Your task to perform on an android device: Open wifi settings Image 0: 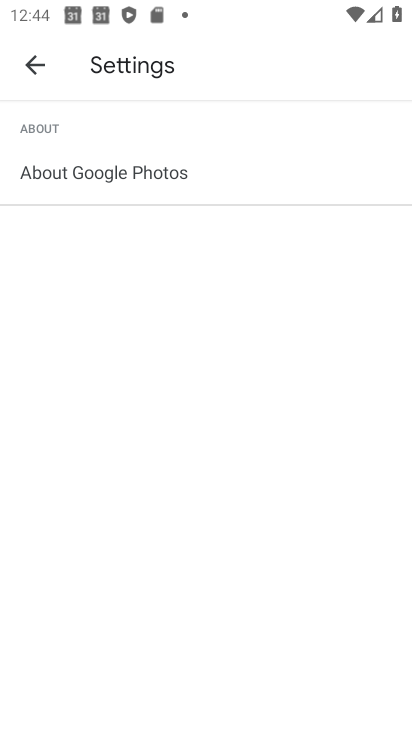
Step 0: press home button
Your task to perform on an android device: Open wifi settings Image 1: 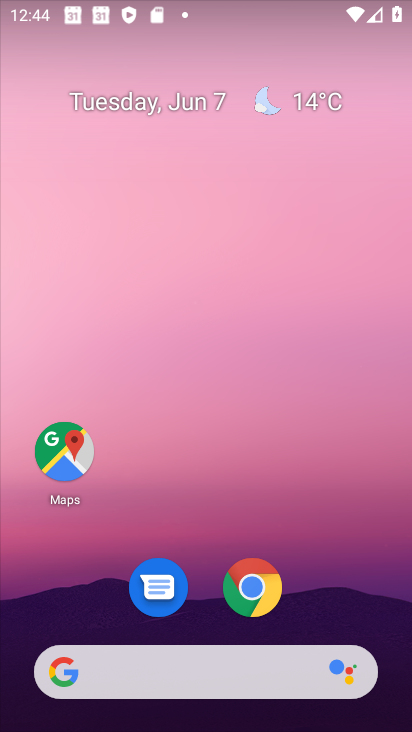
Step 1: drag from (253, 647) to (348, 151)
Your task to perform on an android device: Open wifi settings Image 2: 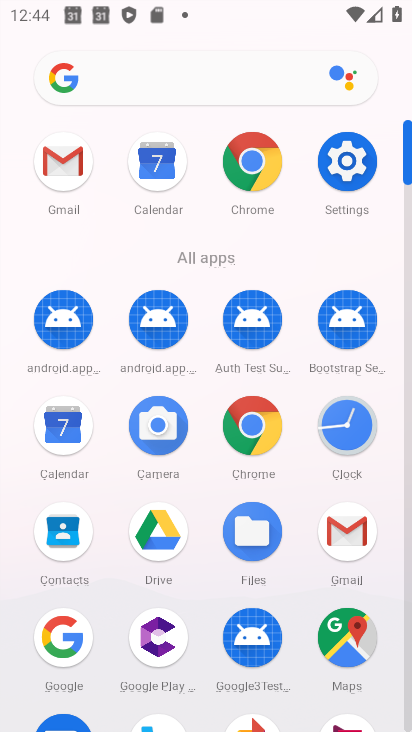
Step 2: click (377, 170)
Your task to perform on an android device: Open wifi settings Image 3: 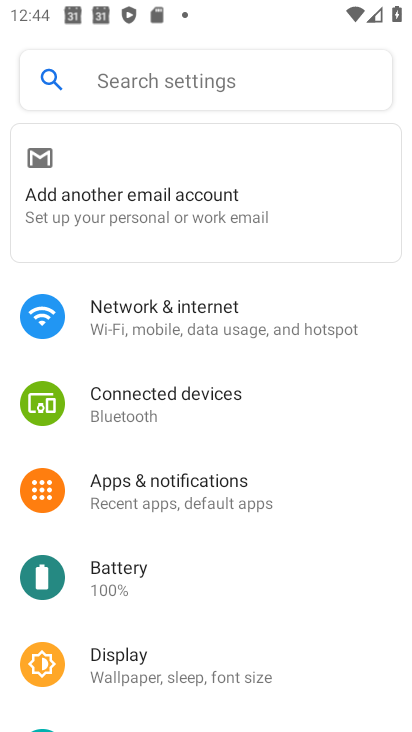
Step 3: click (232, 319)
Your task to perform on an android device: Open wifi settings Image 4: 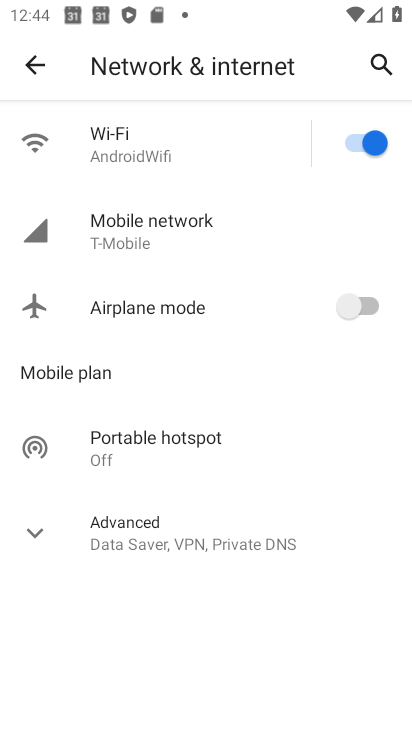
Step 4: click (176, 156)
Your task to perform on an android device: Open wifi settings Image 5: 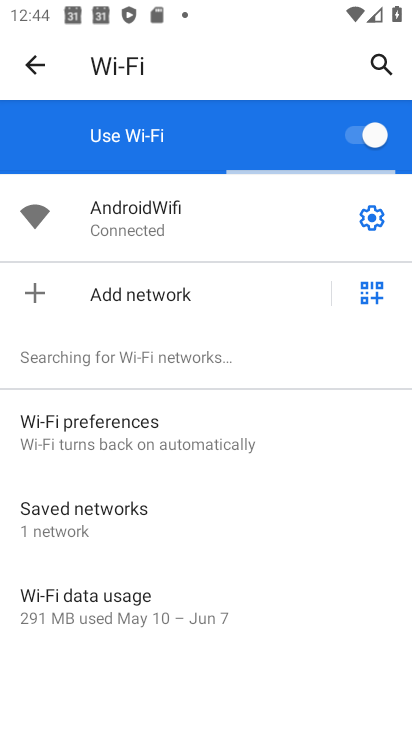
Step 5: task complete